Your task to perform on an android device: turn off wifi Image 0: 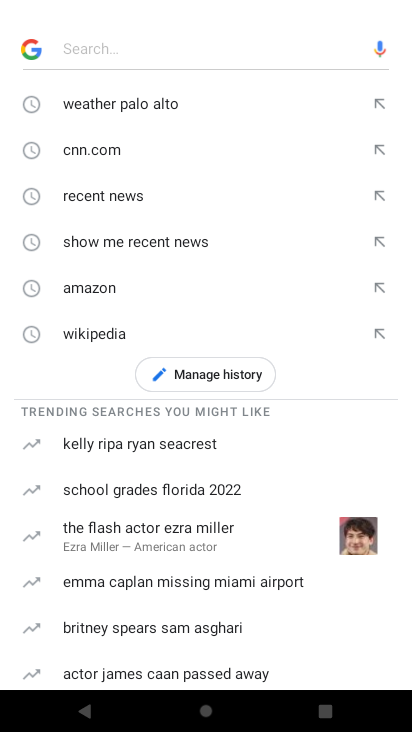
Step 0: press back button
Your task to perform on an android device: turn off wifi Image 1: 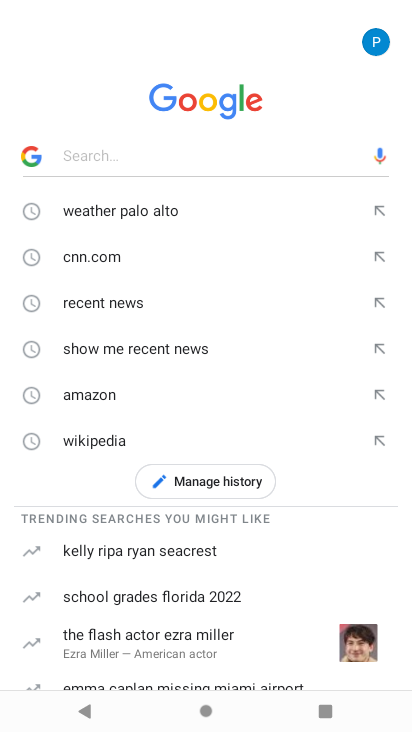
Step 1: press back button
Your task to perform on an android device: turn off wifi Image 2: 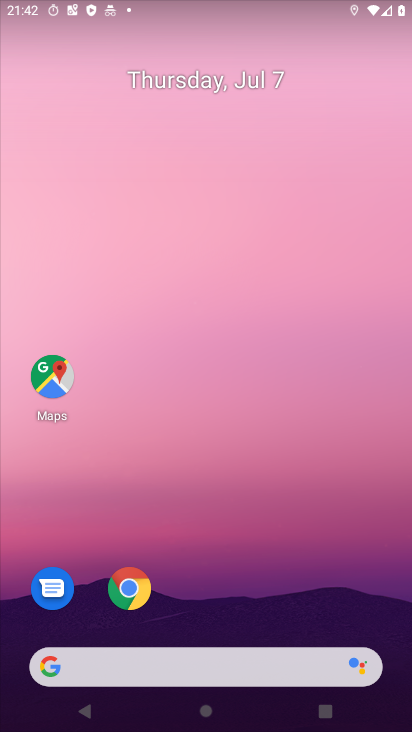
Step 2: drag from (211, 678) to (82, 9)
Your task to perform on an android device: turn off wifi Image 3: 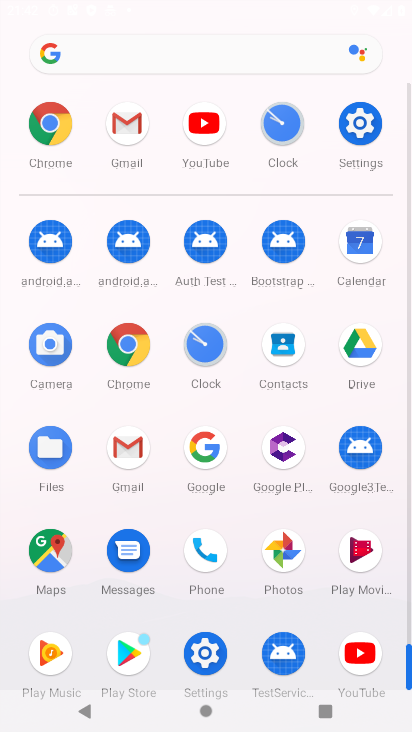
Step 3: click (358, 128)
Your task to perform on an android device: turn off wifi Image 4: 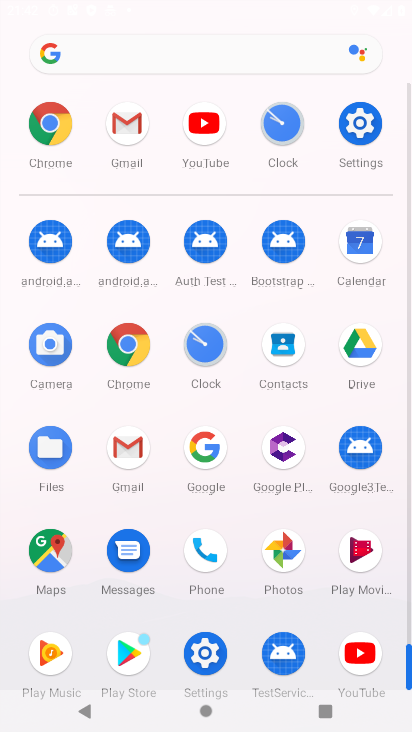
Step 4: click (368, 120)
Your task to perform on an android device: turn off wifi Image 5: 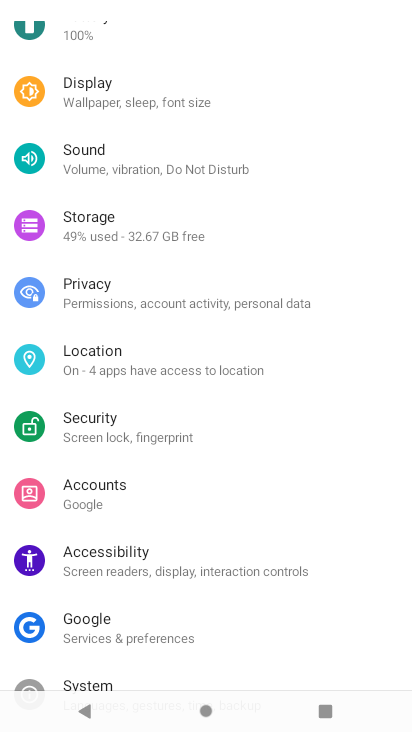
Step 5: drag from (80, 125) to (277, 730)
Your task to perform on an android device: turn off wifi Image 6: 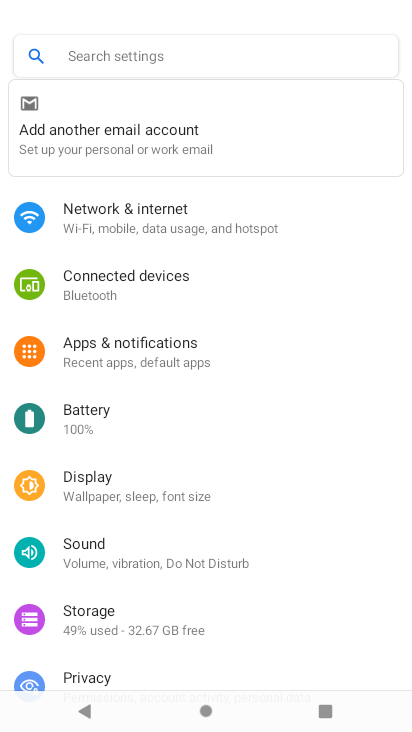
Step 6: click (123, 233)
Your task to perform on an android device: turn off wifi Image 7: 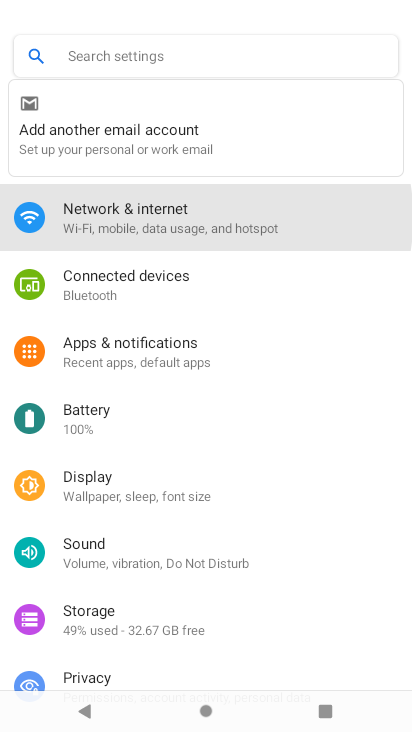
Step 7: click (124, 229)
Your task to perform on an android device: turn off wifi Image 8: 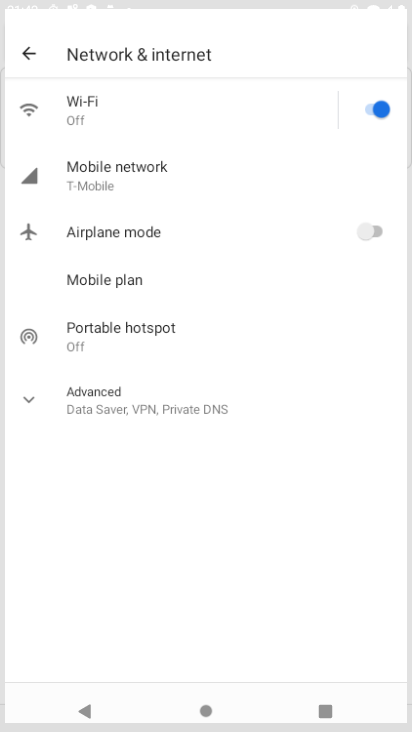
Step 8: click (129, 227)
Your task to perform on an android device: turn off wifi Image 9: 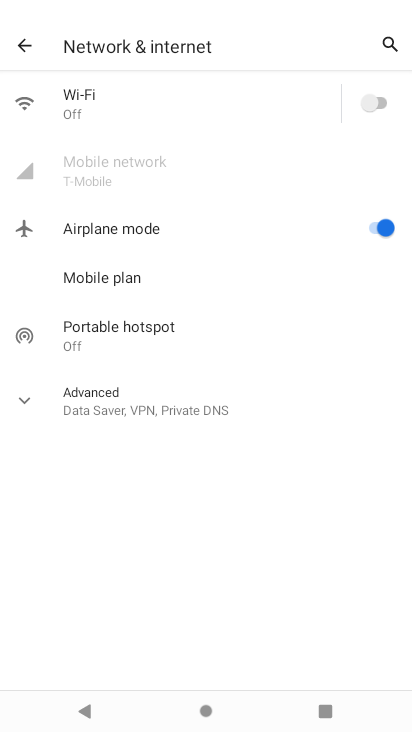
Step 9: task complete